Your task to perform on an android device: move an email to a new category in the gmail app Image 0: 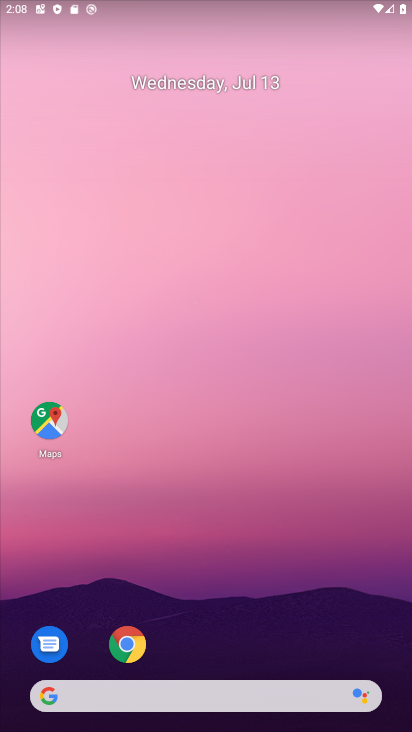
Step 0: drag from (291, 627) to (166, 137)
Your task to perform on an android device: move an email to a new category in the gmail app Image 1: 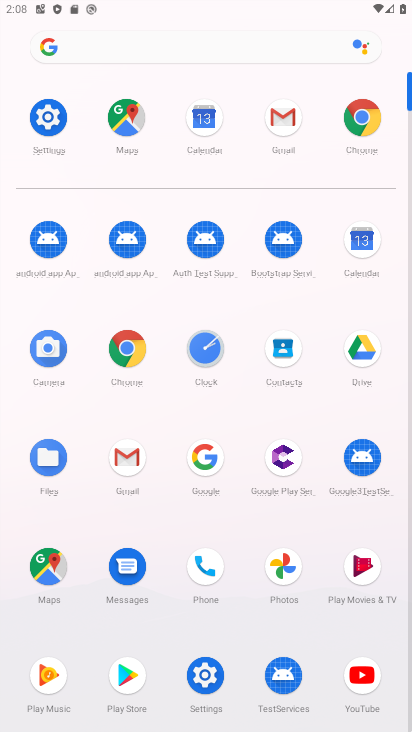
Step 1: click (299, 123)
Your task to perform on an android device: move an email to a new category in the gmail app Image 2: 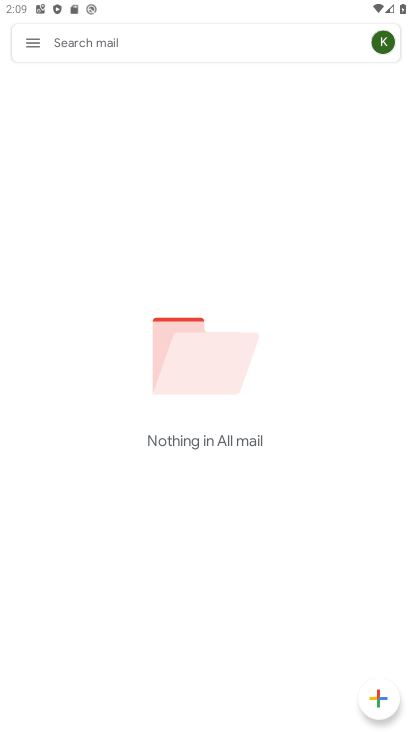
Step 2: click (34, 33)
Your task to perform on an android device: move an email to a new category in the gmail app Image 3: 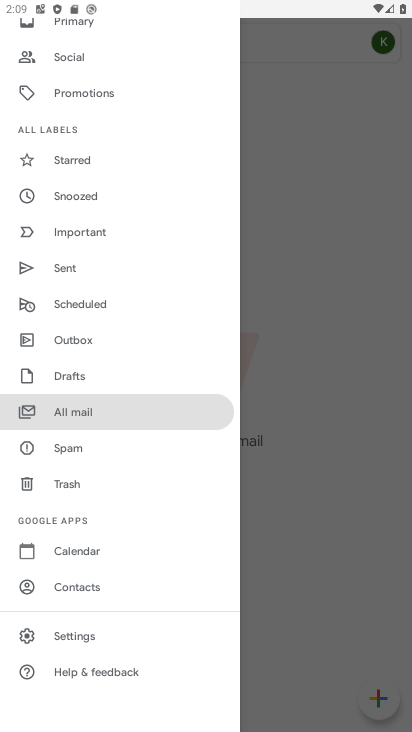
Step 3: click (183, 415)
Your task to perform on an android device: move an email to a new category in the gmail app Image 4: 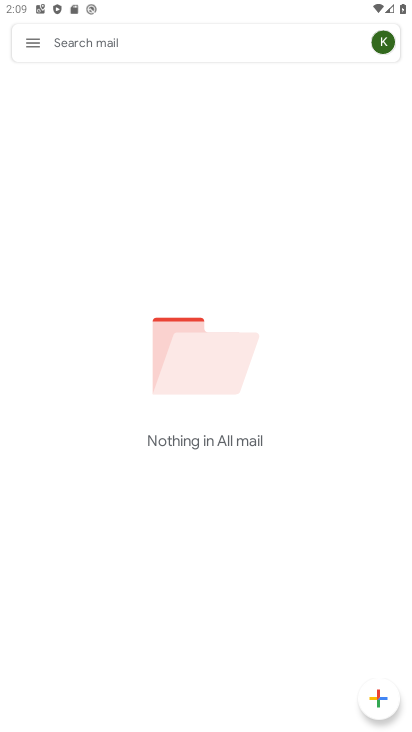
Step 4: task complete